Your task to perform on an android device: snooze an email in the gmail app Image 0: 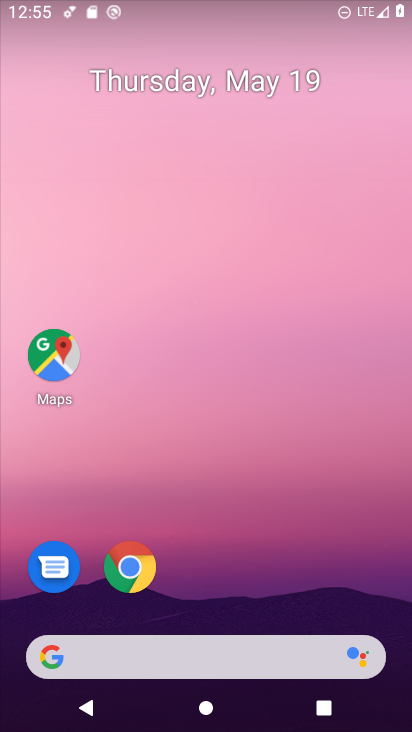
Step 0: drag from (285, 533) to (278, 47)
Your task to perform on an android device: snooze an email in the gmail app Image 1: 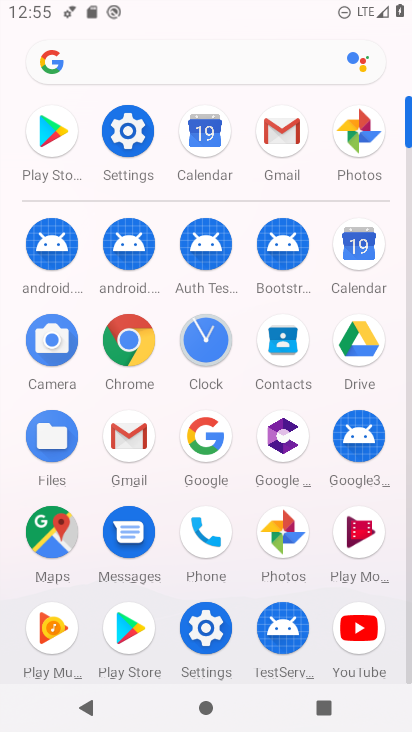
Step 1: click (293, 139)
Your task to perform on an android device: snooze an email in the gmail app Image 2: 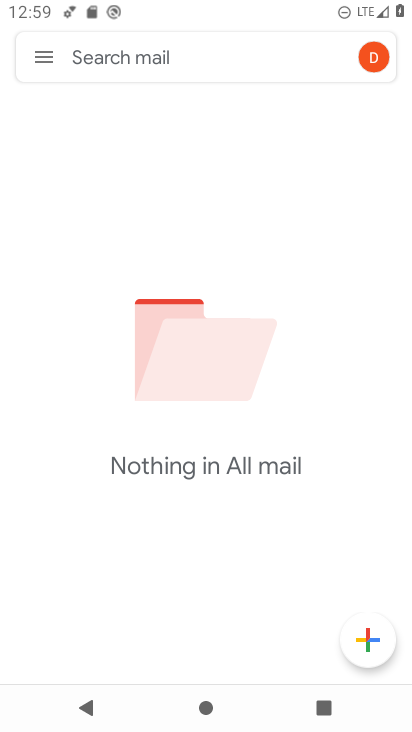
Step 2: task complete